Your task to perform on an android device: Open network settings Image 0: 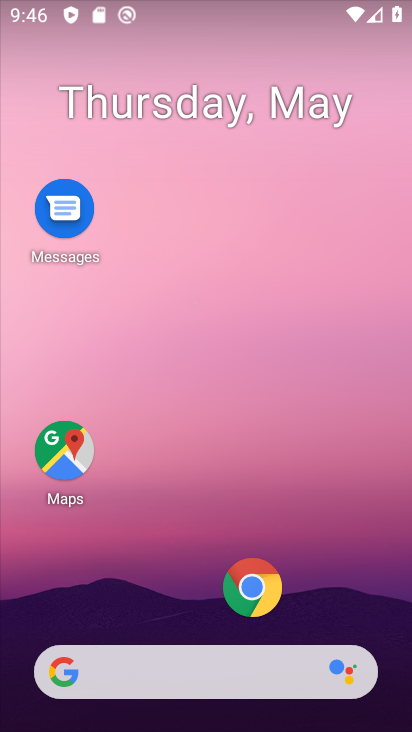
Step 0: drag from (213, 640) to (183, 115)
Your task to perform on an android device: Open network settings Image 1: 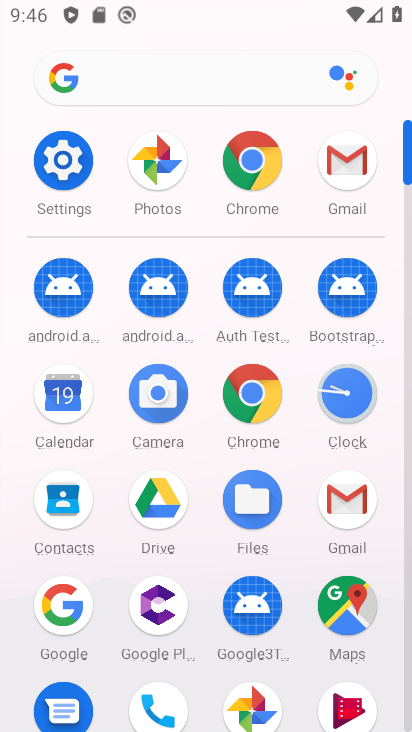
Step 1: click (69, 191)
Your task to perform on an android device: Open network settings Image 2: 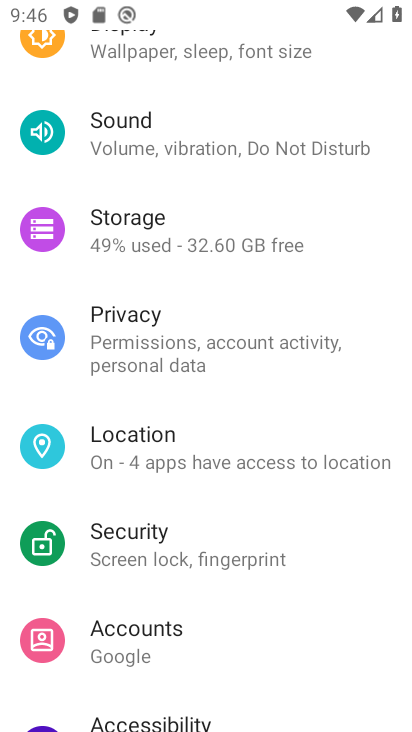
Step 2: drag from (161, 197) to (137, 636)
Your task to perform on an android device: Open network settings Image 3: 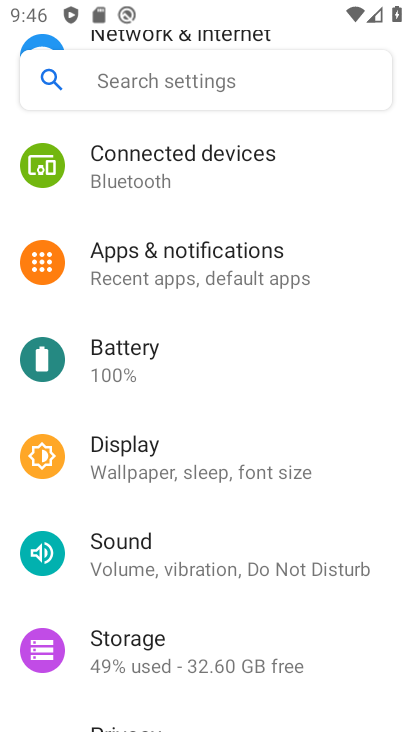
Step 3: drag from (158, 153) to (156, 525)
Your task to perform on an android device: Open network settings Image 4: 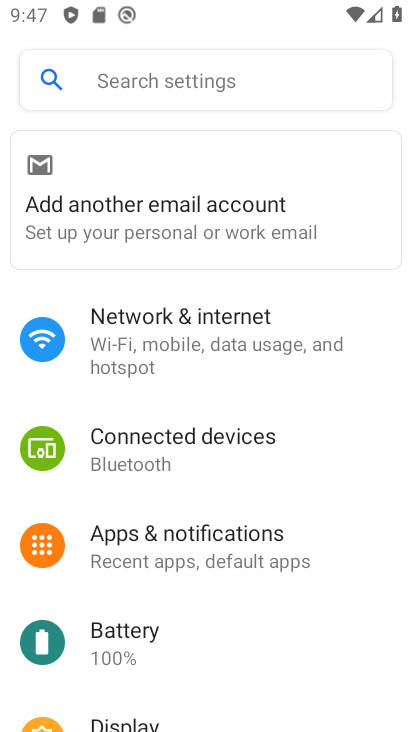
Step 4: click (174, 326)
Your task to perform on an android device: Open network settings Image 5: 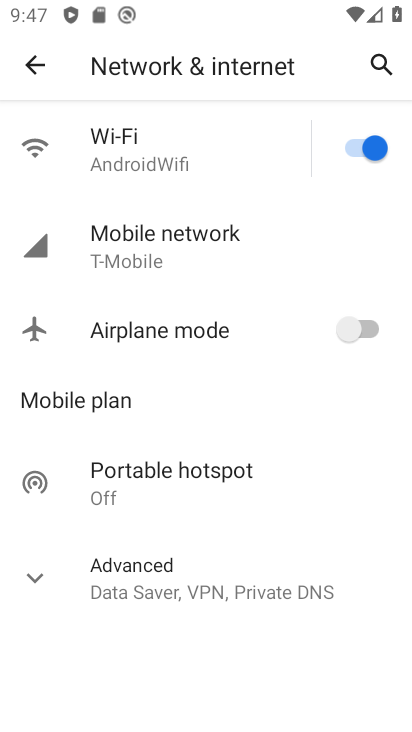
Step 5: click (162, 258)
Your task to perform on an android device: Open network settings Image 6: 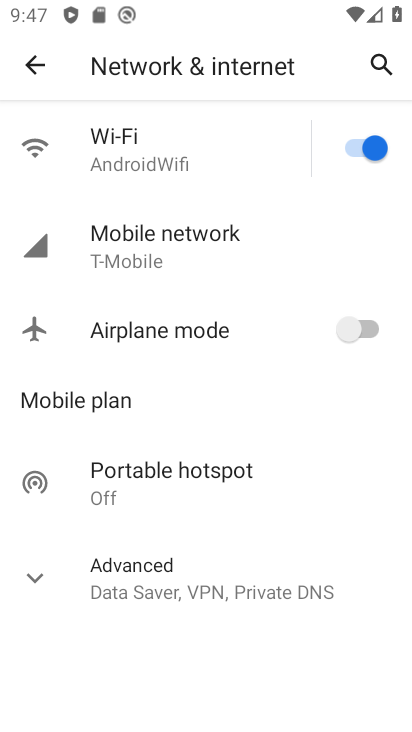
Step 6: task complete